Your task to perform on an android device: Open the web browser Image 0: 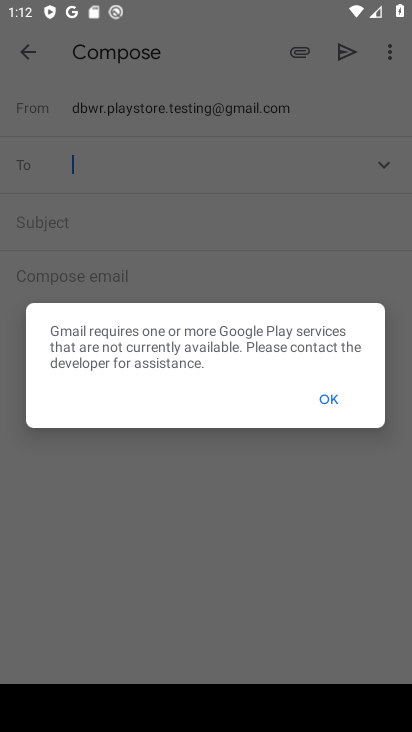
Step 0: press back button
Your task to perform on an android device: Open the web browser Image 1: 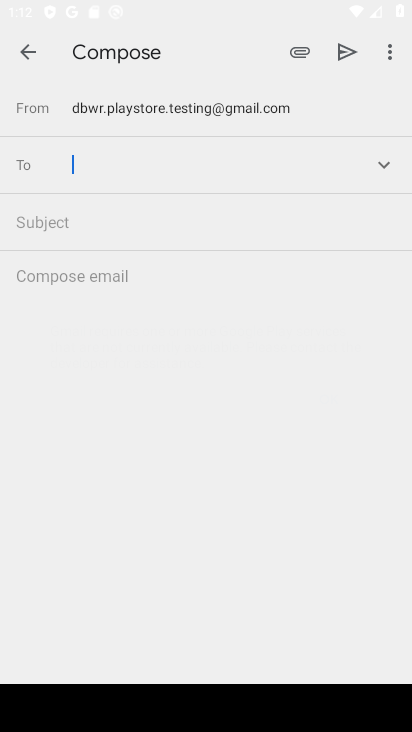
Step 1: press home button
Your task to perform on an android device: Open the web browser Image 2: 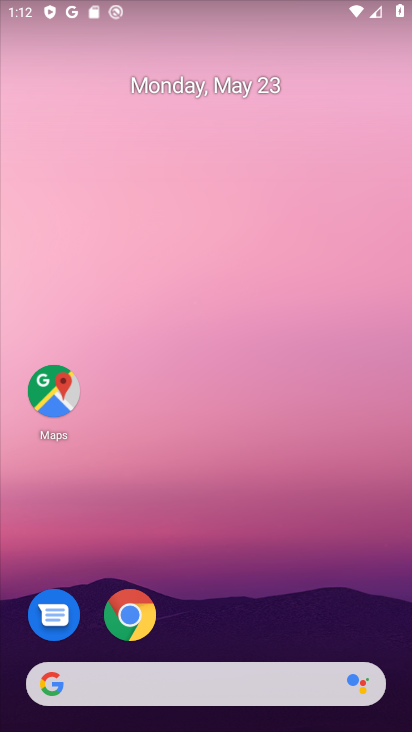
Step 2: click (256, 684)
Your task to perform on an android device: Open the web browser Image 3: 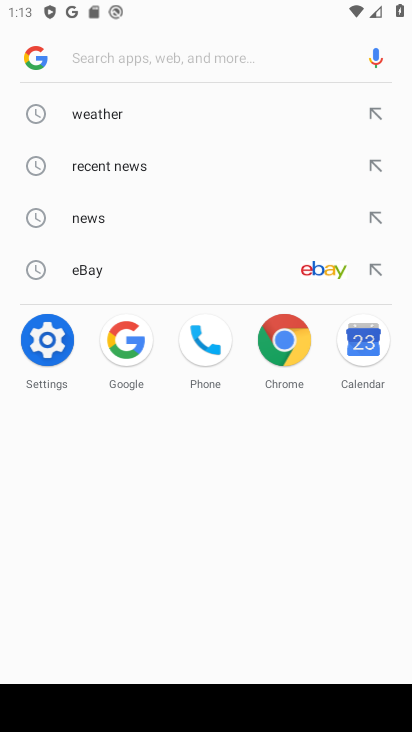
Step 3: task complete